Your task to perform on an android device: Go to Wikipedia Image 0: 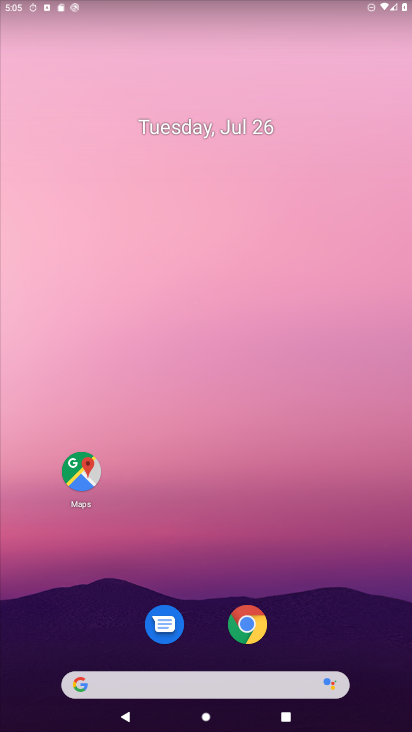
Step 0: drag from (136, 680) to (192, 10)
Your task to perform on an android device: Go to Wikipedia Image 1: 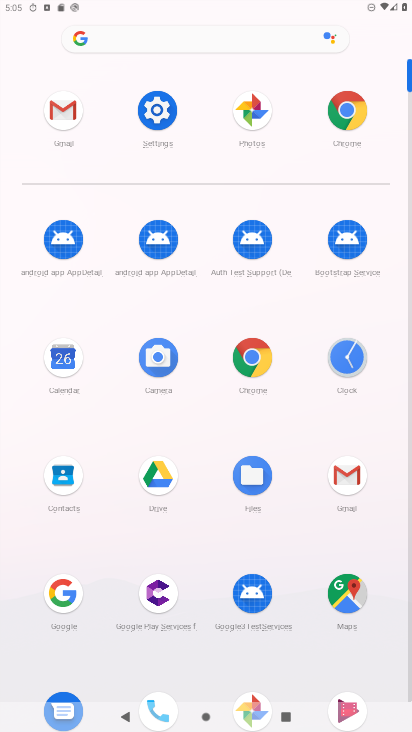
Step 1: click (246, 357)
Your task to perform on an android device: Go to Wikipedia Image 2: 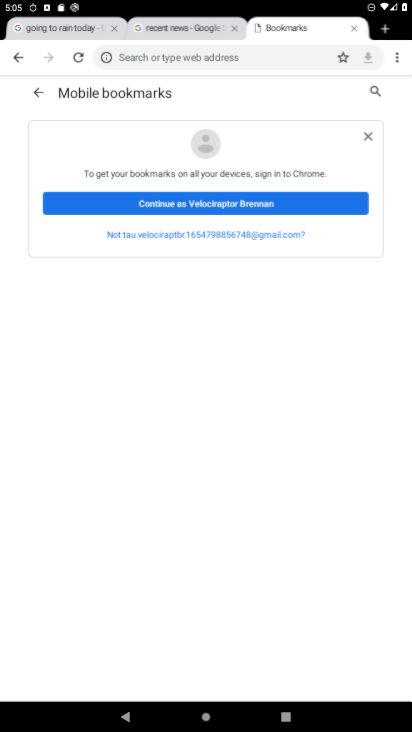
Step 2: click (391, 54)
Your task to perform on an android device: Go to Wikipedia Image 3: 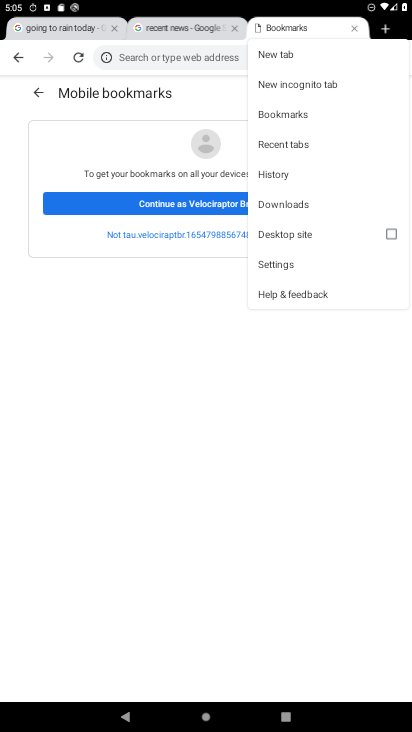
Step 3: click (289, 48)
Your task to perform on an android device: Go to Wikipedia Image 4: 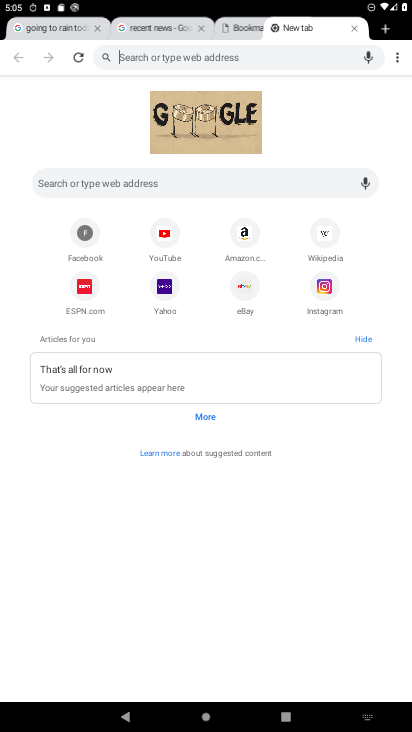
Step 4: click (317, 229)
Your task to perform on an android device: Go to Wikipedia Image 5: 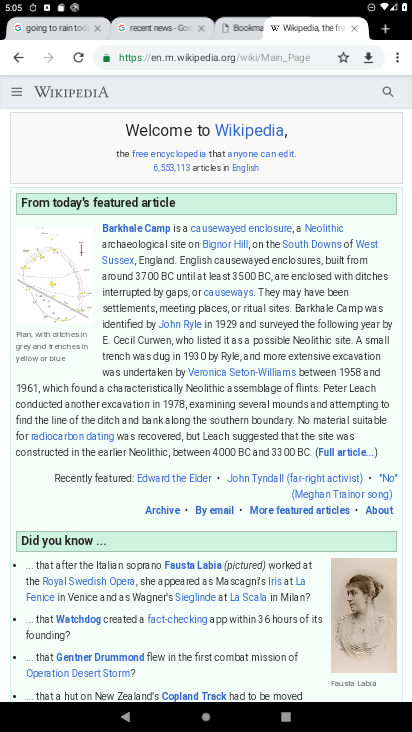
Step 5: task complete